Your task to perform on an android device: delete location history Image 0: 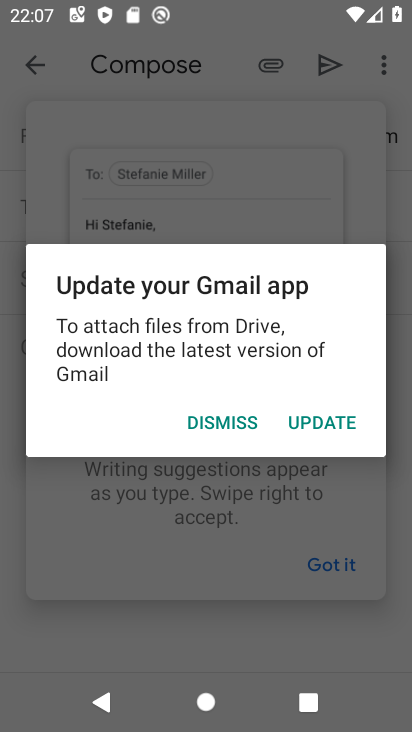
Step 0: press home button
Your task to perform on an android device: delete location history Image 1: 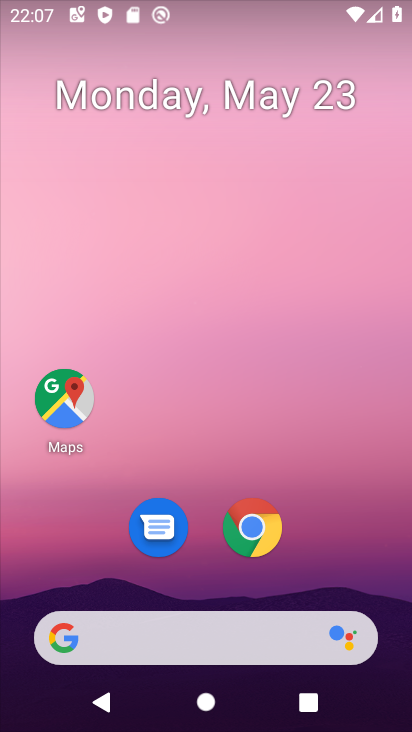
Step 1: click (71, 415)
Your task to perform on an android device: delete location history Image 2: 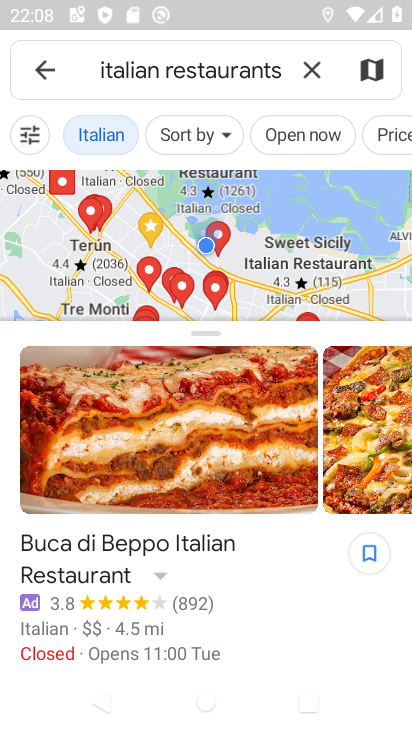
Step 2: click (36, 67)
Your task to perform on an android device: delete location history Image 3: 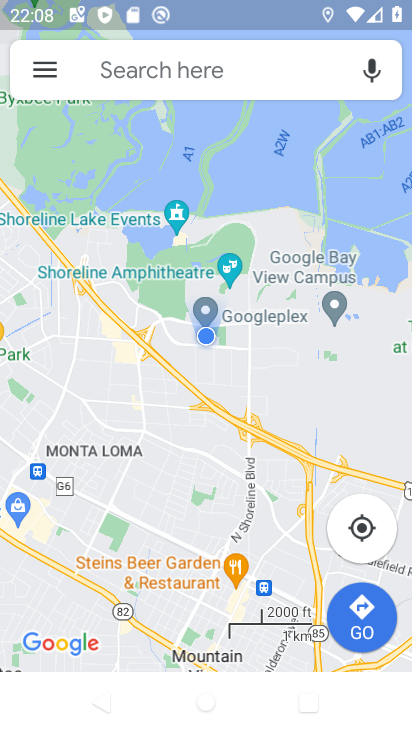
Step 3: click (46, 72)
Your task to perform on an android device: delete location history Image 4: 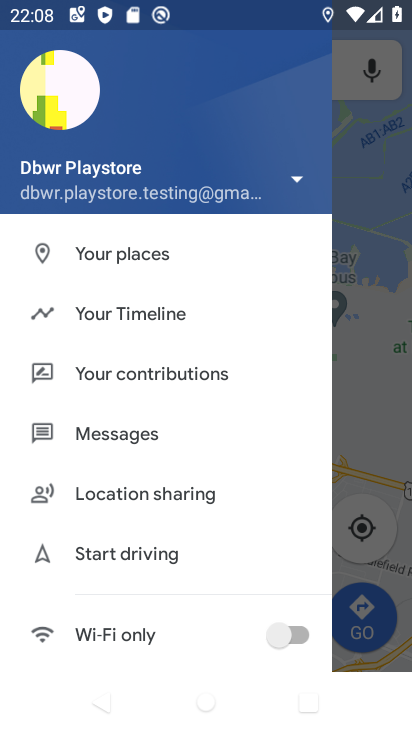
Step 4: click (110, 309)
Your task to perform on an android device: delete location history Image 5: 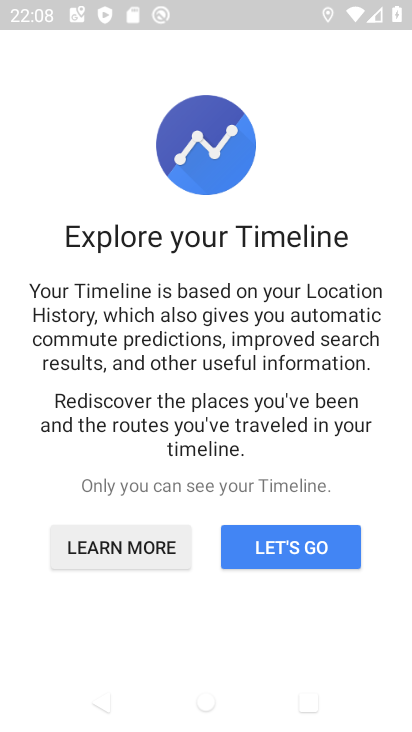
Step 5: click (276, 549)
Your task to perform on an android device: delete location history Image 6: 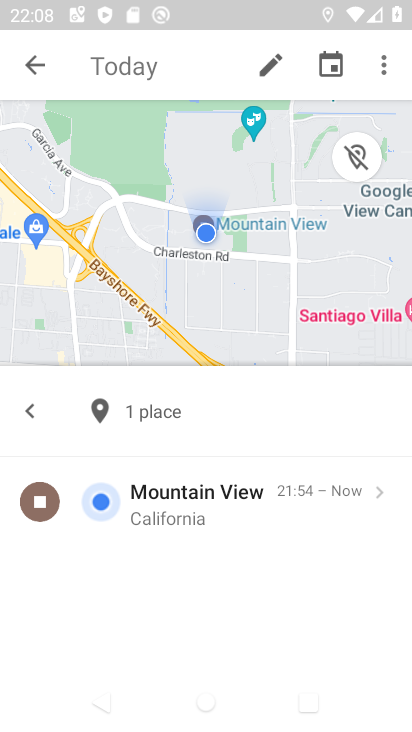
Step 6: click (375, 58)
Your task to perform on an android device: delete location history Image 7: 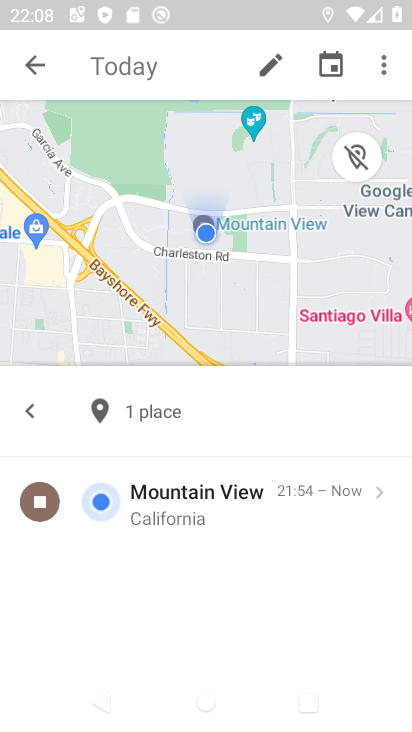
Step 7: click (382, 51)
Your task to perform on an android device: delete location history Image 8: 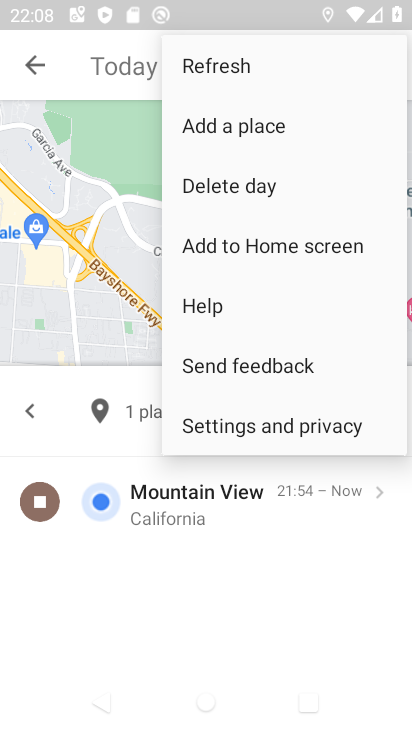
Step 8: click (276, 412)
Your task to perform on an android device: delete location history Image 9: 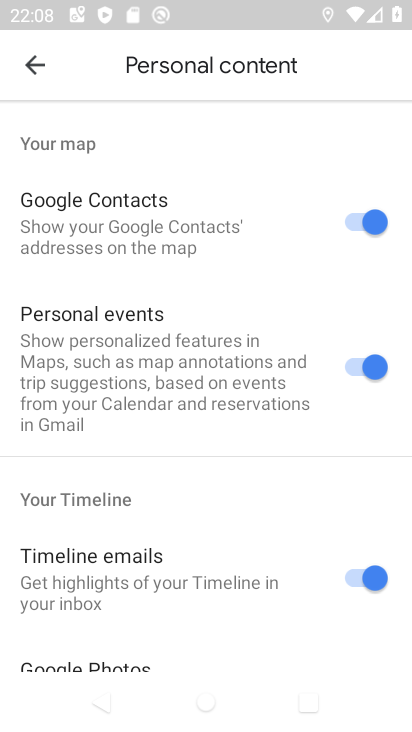
Step 9: drag from (122, 513) to (116, 28)
Your task to perform on an android device: delete location history Image 10: 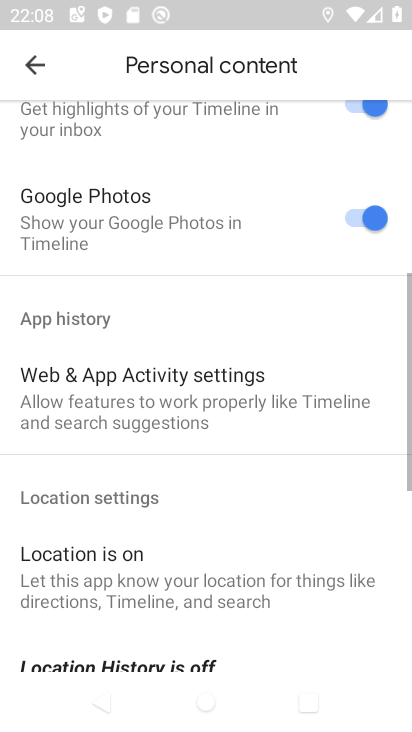
Step 10: drag from (121, 554) to (168, 62)
Your task to perform on an android device: delete location history Image 11: 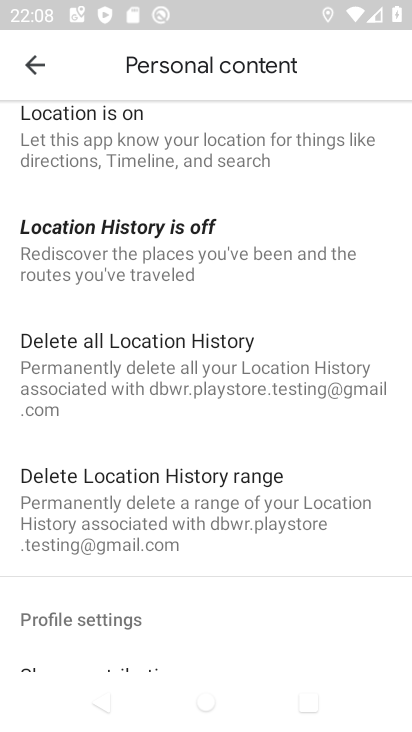
Step 11: click (177, 361)
Your task to perform on an android device: delete location history Image 12: 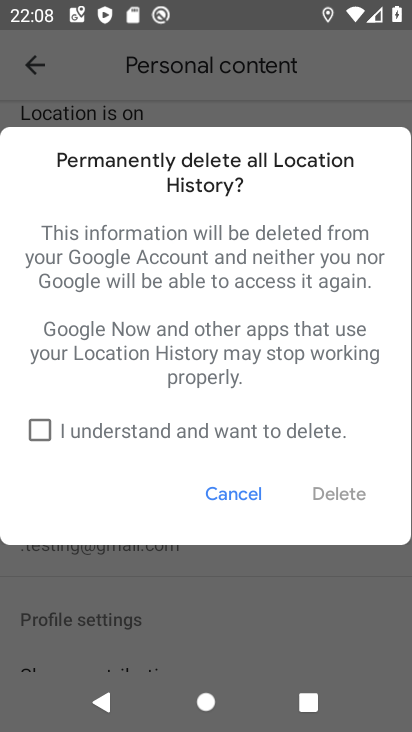
Step 12: click (200, 431)
Your task to perform on an android device: delete location history Image 13: 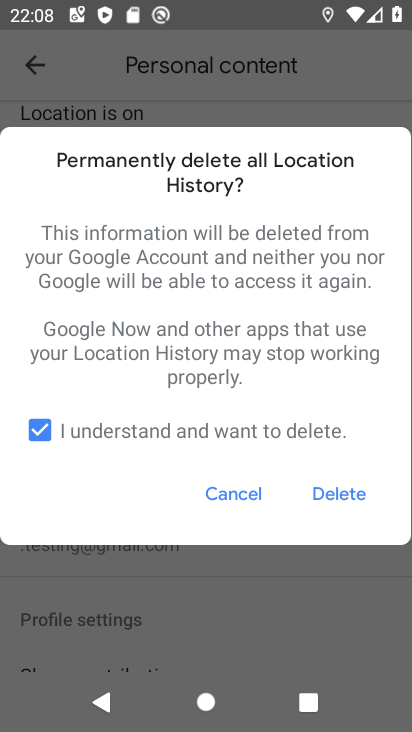
Step 13: click (330, 486)
Your task to perform on an android device: delete location history Image 14: 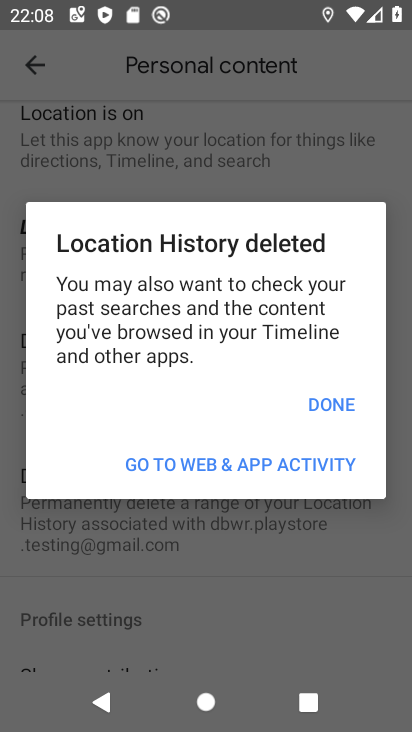
Step 14: click (328, 399)
Your task to perform on an android device: delete location history Image 15: 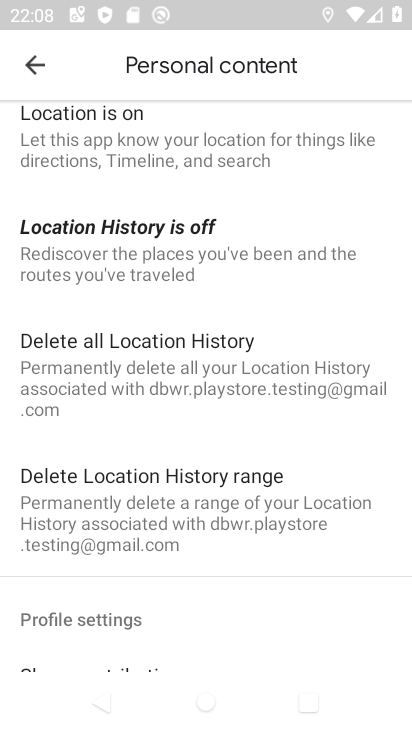
Step 15: task complete